Your task to perform on an android device: Go to calendar. Show me events next week Image 0: 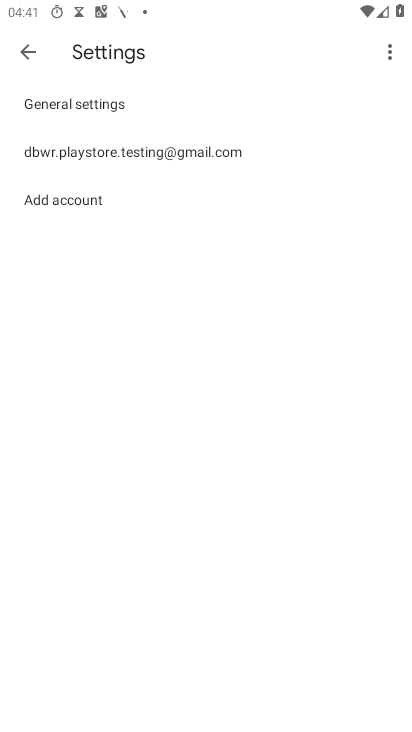
Step 0: press home button
Your task to perform on an android device: Go to calendar. Show me events next week Image 1: 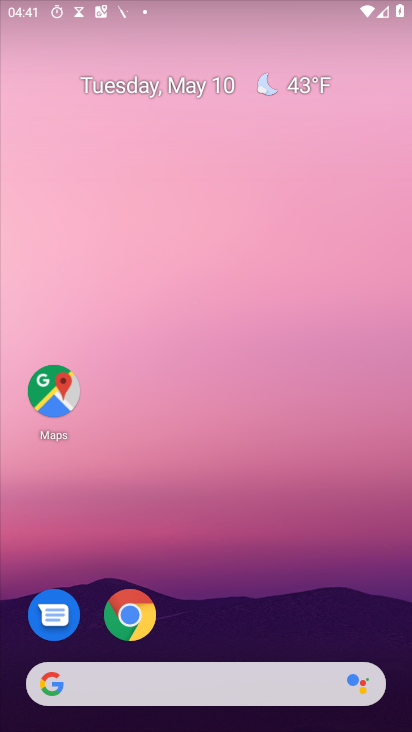
Step 1: drag from (269, 655) to (266, 26)
Your task to perform on an android device: Go to calendar. Show me events next week Image 2: 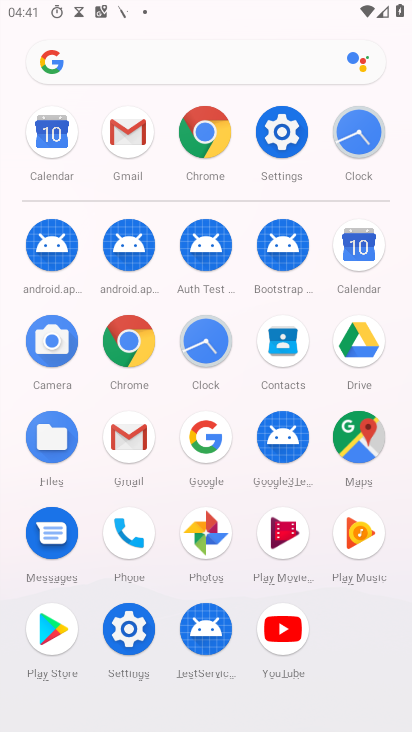
Step 2: click (353, 249)
Your task to perform on an android device: Go to calendar. Show me events next week Image 3: 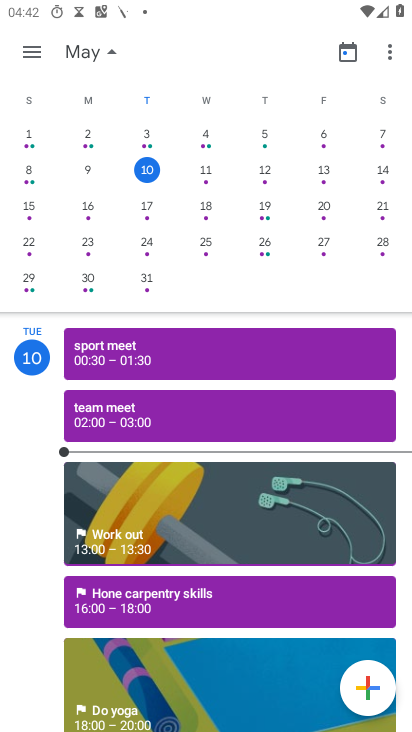
Step 3: drag from (383, 226) to (77, 254)
Your task to perform on an android device: Go to calendar. Show me events next week Image 4: 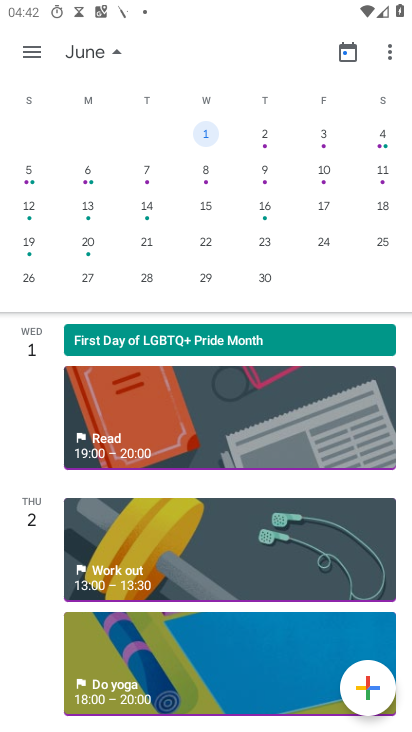
Step 4: drag from (127, 222) to (343, 222)
Your task to perform on an android device: Go to calendar. Show me events next week Image 5: 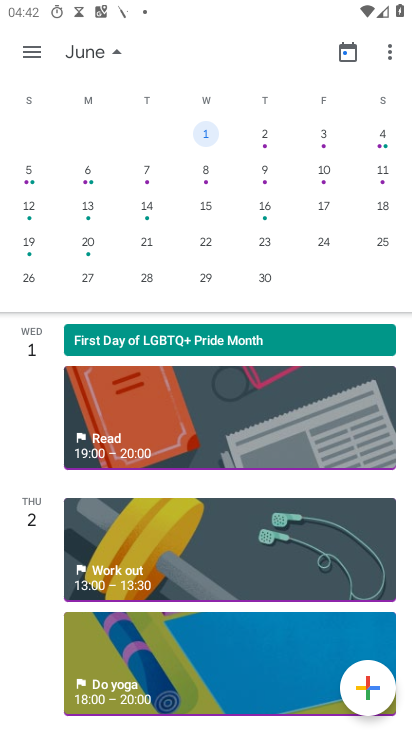
Step 5: click (203, 183)
Your task to perform on an android device: Go to calendar. Show me events next week Image 6: 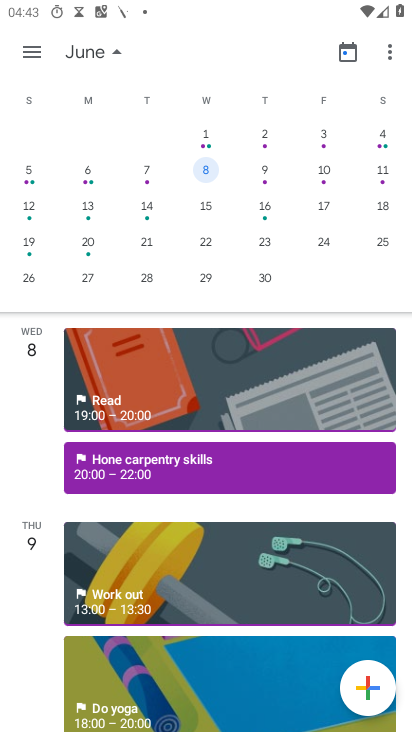
Step 6: task complete